Your task to perform on an android device: allow notifications from all sites in the chrome app Image 0: 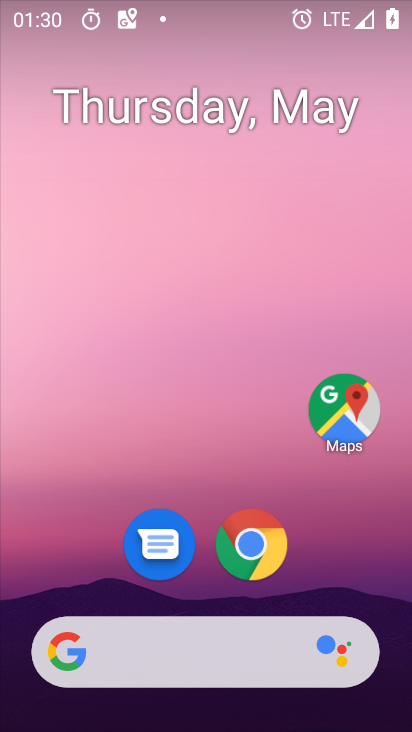
Step 0: press home button
Your task to perform on an android device: allow notifications from all sites in the chrome app Image 1: 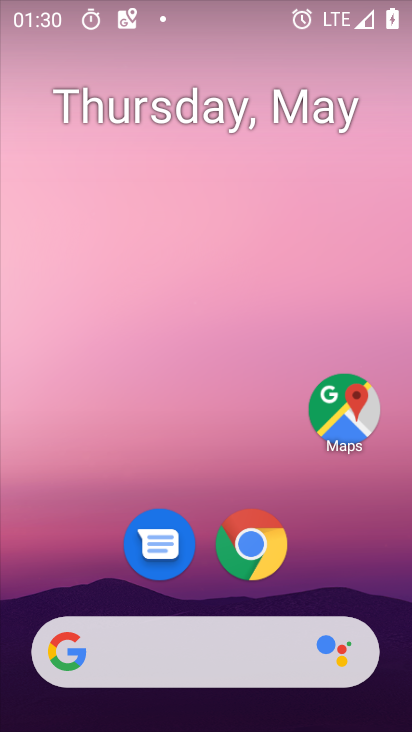
Step 1: drag from (365, 578) to (369, 191)
Your task to perform on an android device: allow notifications from all sites in the chrome app Image 2: 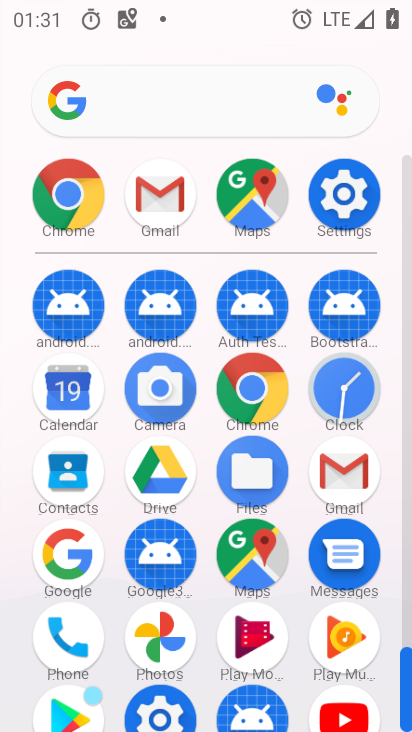
Step 2: click (264, 390)
Your task to perform on an android device: allow notifications from all sites in the chrome app Image 3: 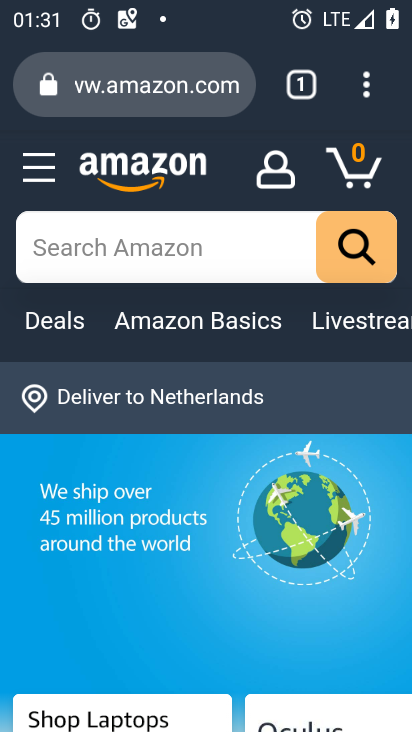
Step 3: click (368, 99)
Your task to perform on an android device: allow notifications from all sites in the chrome app Image 4: 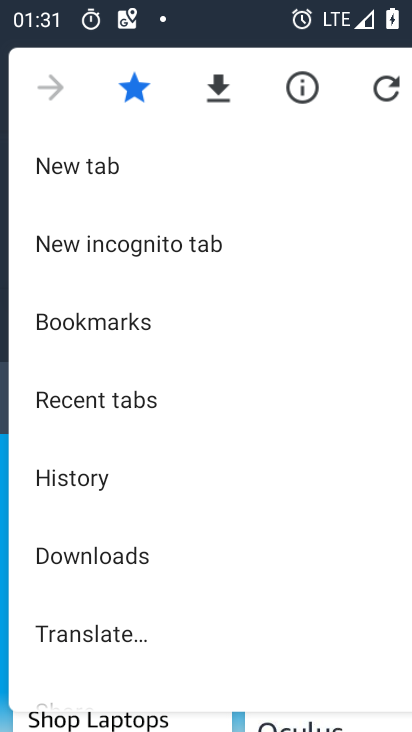
Step 4: drag from (313, 476) to (313, 325)
Your task to perform on an android device: allow notifications from all sites in the chrome app Image 5: 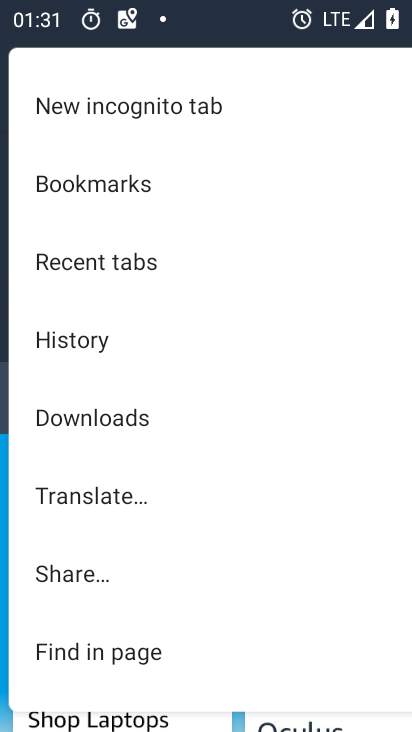
Step 5: drag from (304, 545) to (310, 397)
Your task to perform on an android device: allow notifications from all sites in the chrome app Image 6: 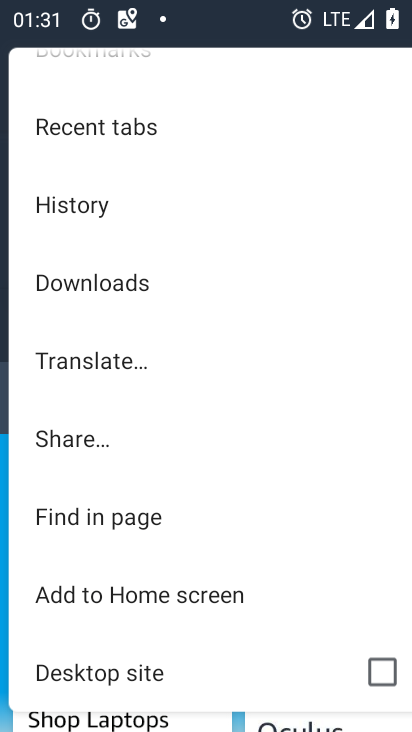
Step 6: drag from (317, 542) to (321, 440)
Your task to perform on an android device: allow notifications from all sites in the chrome app Image 7: 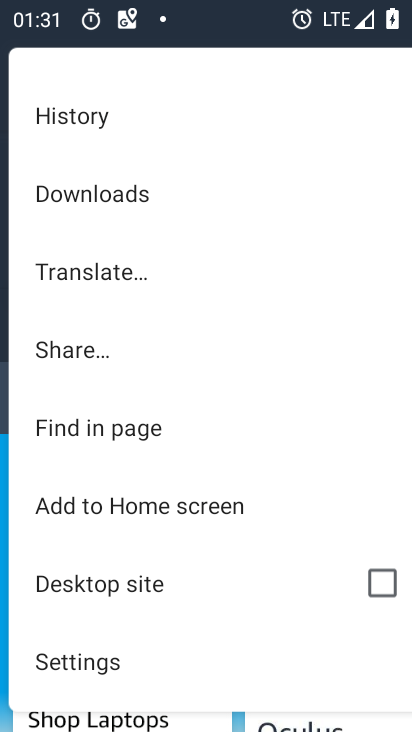
Step 7: drag from (309, 607) to (313, 484)
Your task to perform on an android device: allow notifications from all sites in the chrome app Image 8: 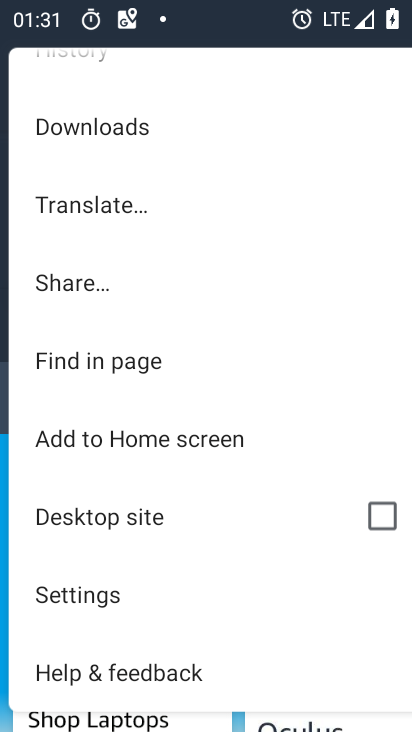
Step 8: drag from (294, 623) to (292, 488)
Your task to perform on an android device: allow notifications from all sites in the chrome app Image 9: 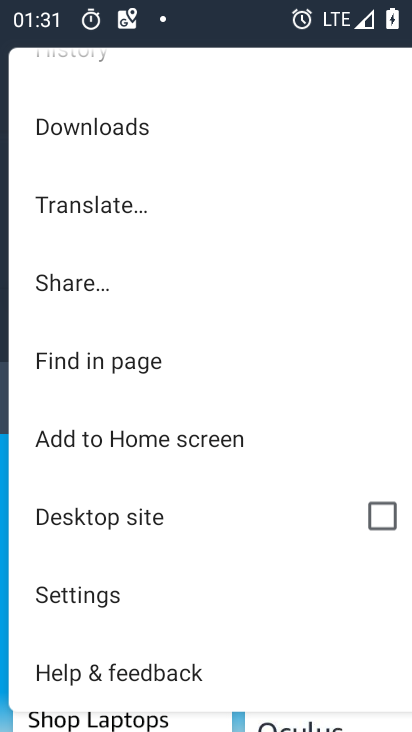
Step 9: click (125, 605)
Your task to perform on an android device: allow notifications from all sites in the chrome app Image 10: 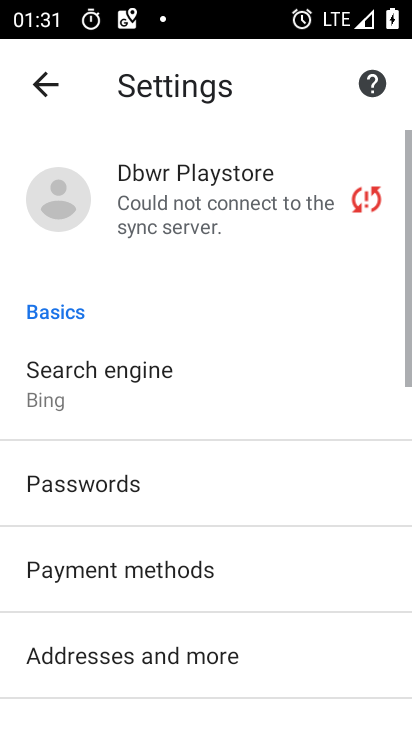
Step 10: drag from (312, 634) to (320, 515)
Your task to perform on an android device: allow notifications from all sites in the chrome app Image 11: 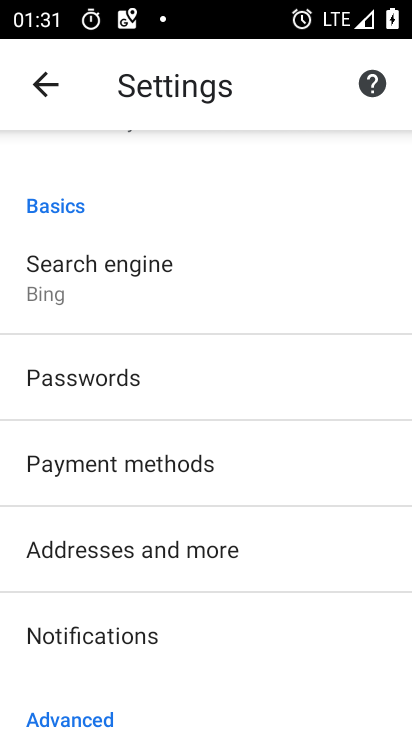
Step 11: drag from (337, 674) to (342, 519)
Your task to perform on an android device: allow notifications from all sites in the chrome app Image 12: 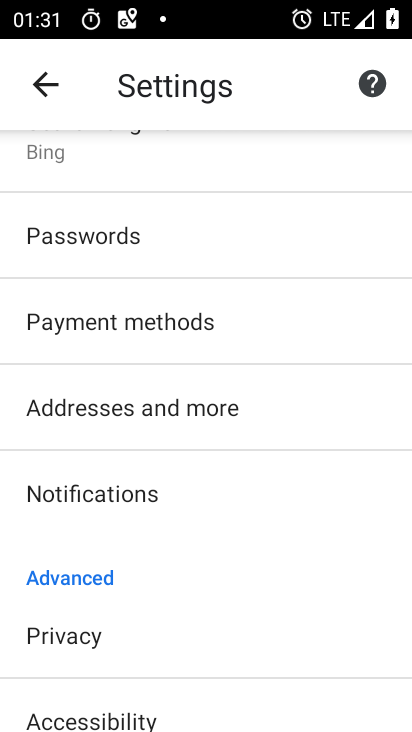
Step 12: drag from (339, 649) to (341, 567)
Your task to perform on an android device: allow notifications from all sites in the chrome app Image 13: 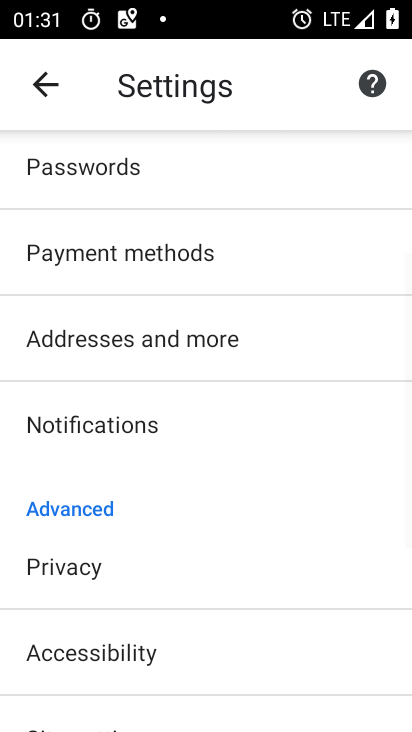
Step 13: drag from (330, 684) to (332, 587)
Your task to perform on an android device: allow notifications from all sites in the chrome app Image 14: 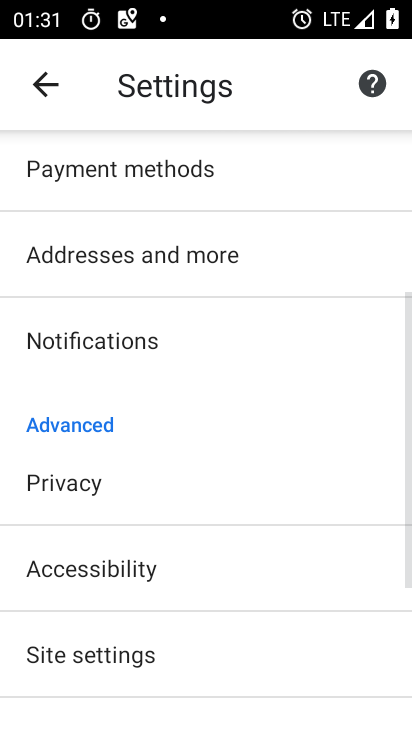
Step 14: drag from (332, 691) to (335, 581)
Your task to perform on an android device: allow notifications from all sites in the chrome app Image 15: 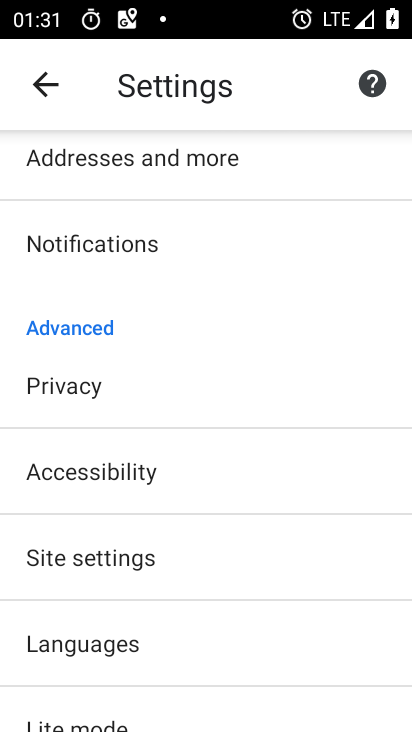
Step 15: drag from (333, 662) to (338, 526)
Your task to perform on an android device: allow notifications from all sites in the chrome app Image 16: 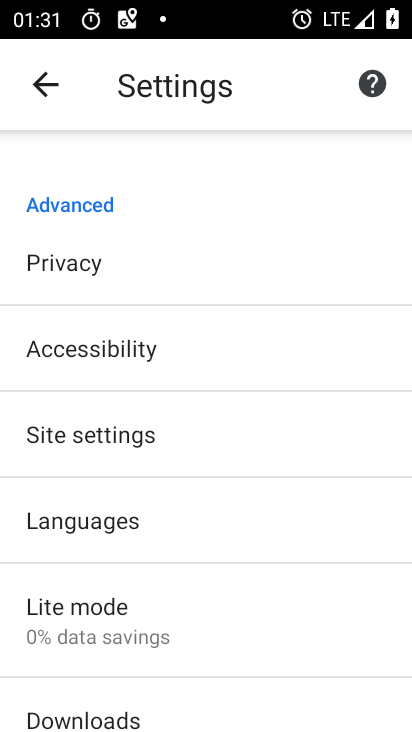
Step 16: drag from (322, 650) to (316, 572)
Your task to perform on an android device: allow notifications from all sites in the chrome app Image 17: 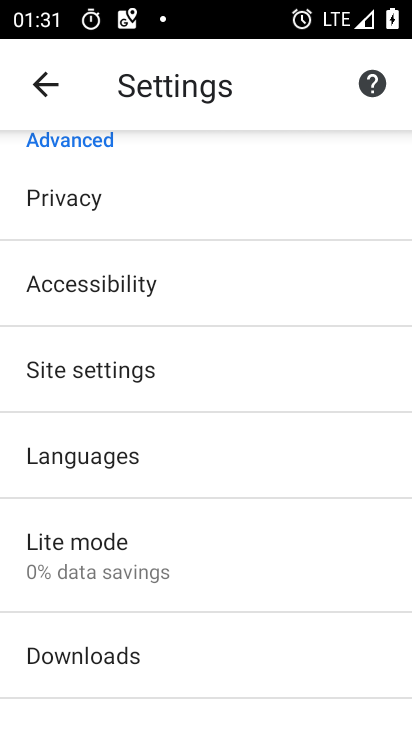
Step 17: drag from (320, 654) to (324, 531)
Your task to perform on an android device: allow notifications from all sites in the chrome app Image 18: 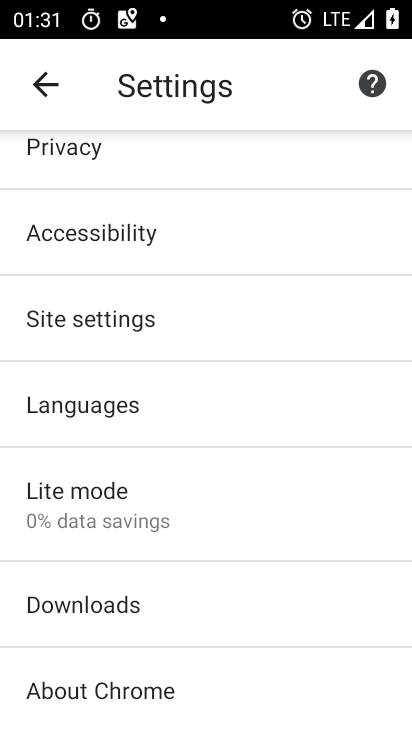
Step 18: drag from (305, 666) to (309, 562)
Your task to perform on an android device: allow notifications from all sites in the chrome app Image 19: 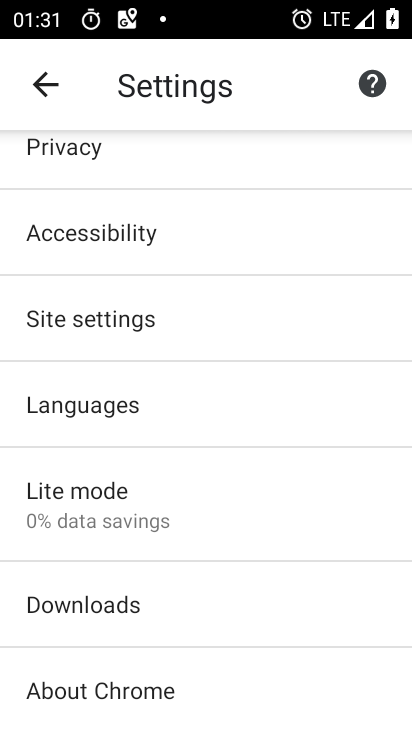
Step 19: click (262, 338)
Your task to perform on an android device: allow notifications from all sites in the chrome app Image 20: 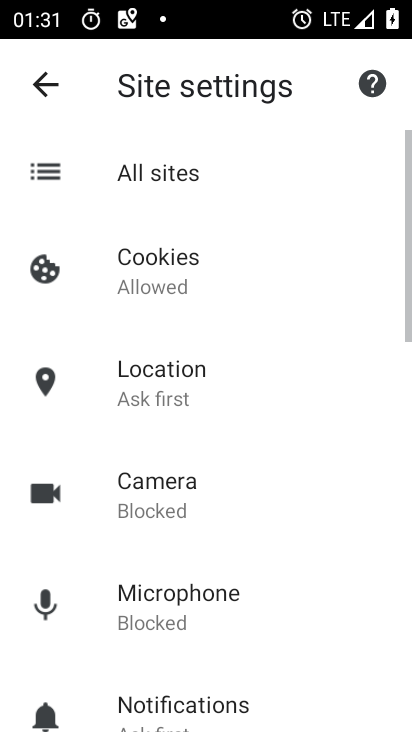
Step 20: drag from (328, 671) to (331, 590)
Your task to perform on an android device: allow notifications from all sites in the chrome app Image 21: 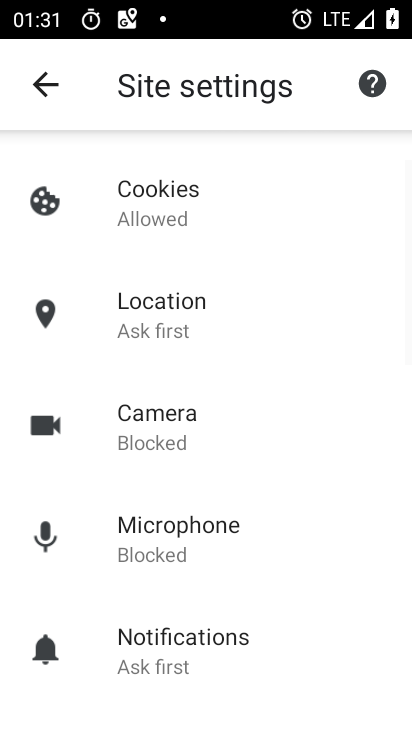
Step 21: drag from (330, 689) to (339, 567)
Your task to perform on an android device: allow notifications from all sites in the chrome app Image 22: 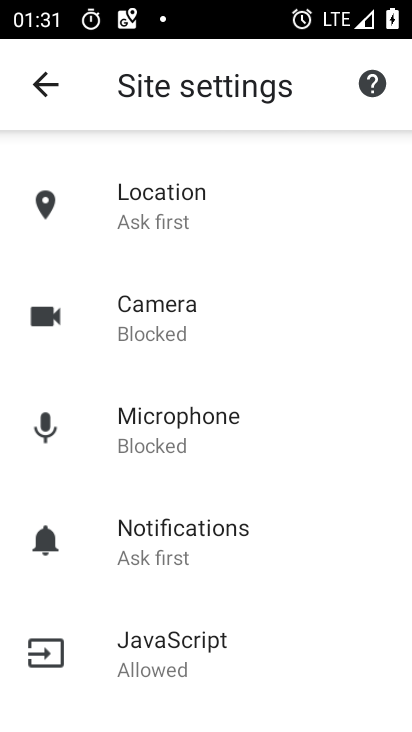
Step 22: drag from (337, 690) to (341, 559)
Your task to perform on an android device: allow notifications from all sites in the chrome app Image 23: 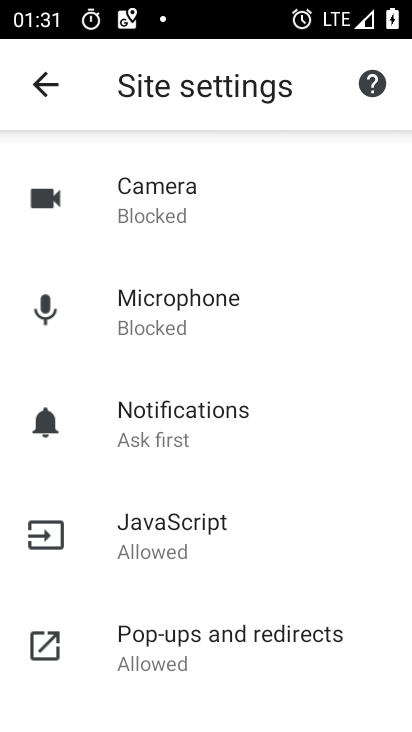
Step 23: click (233, 427)
Your task to perform on an android device: allow notifications from all sites in the chrome app Image 24: 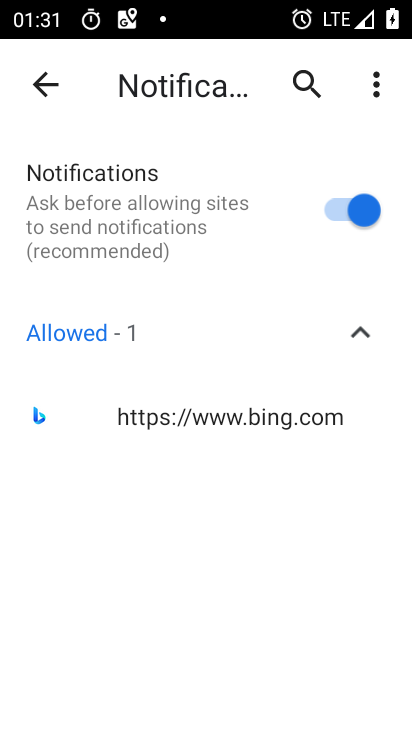
Step 24: task complete